Your task to perform on an android device: find which apps use the phone's location Image 0: 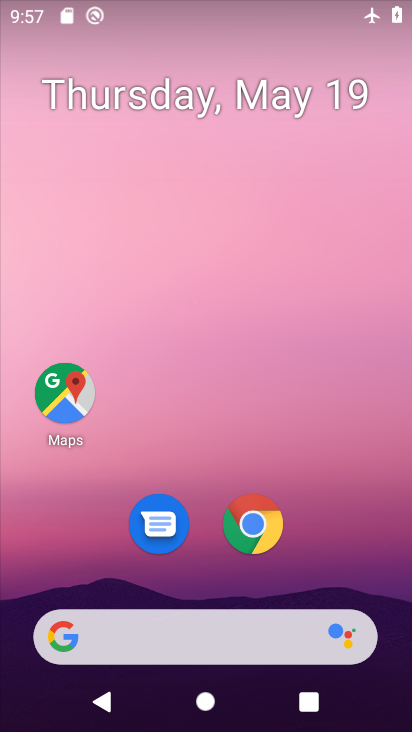
Step 0: drag from (241, 438) to (272, 95)
Your task to perform on an android device: find which apps use the phone's location Image 1: 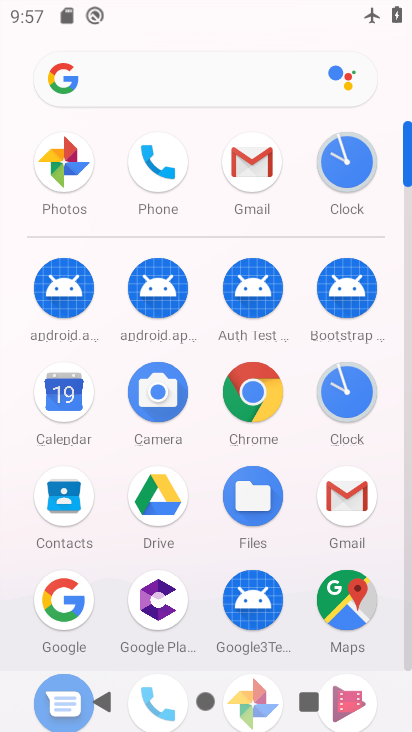
Step 1: drag from (200, 513) to (211, 155)
Your task to perform on an android device: find which apps use the phone's location Image 2: 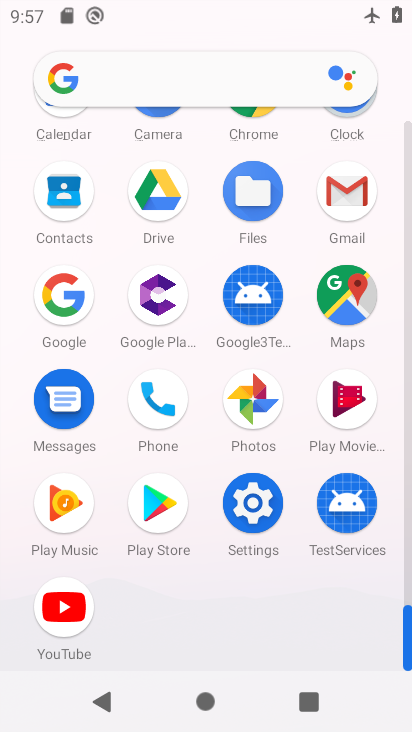
Step 2: click (256, 491)
Your task to perform on an android device: find which apps use the phone's location Image 3: 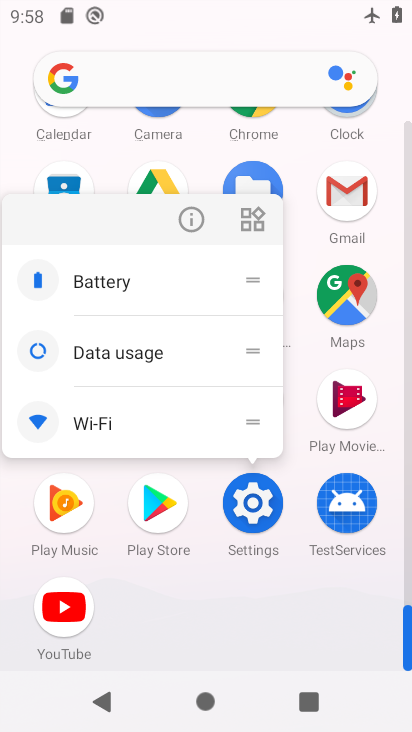
Step 3: click (256, 489)
Your task to perform on an android device: find which apps use the phone's location Image 4: 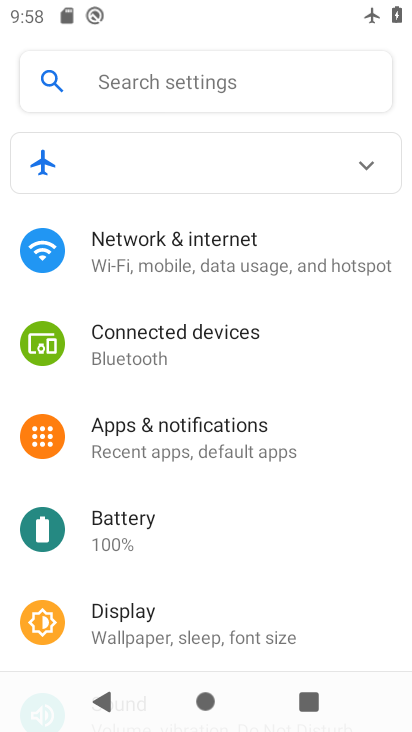
Step 4: drag from (246, 526) to (255, 201)
Your task to perform on an android device: find which apps use the phone's location Image 5: 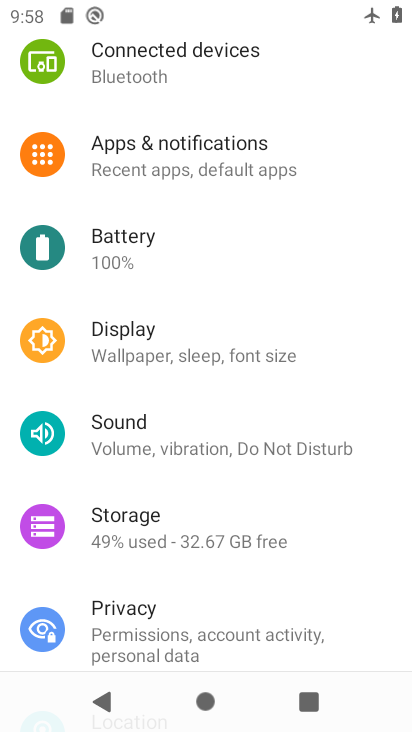
Step 5: drag from (243, 403) to (259, 103)
Your task to perform on an android device: find which apps use the phone's location Image 6: 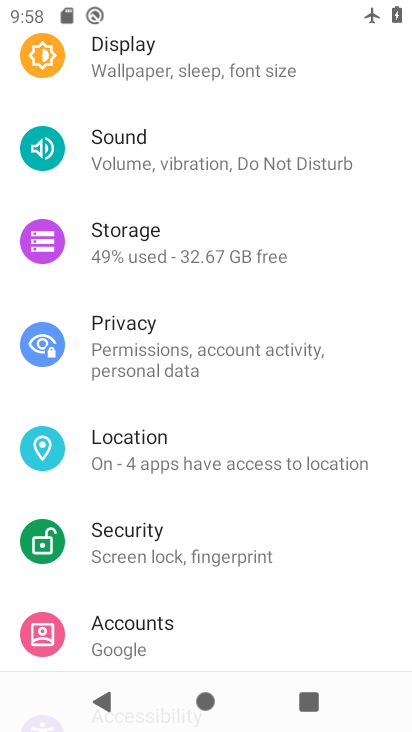
Step 6: click (234, 450)
Your task to perform on an android device: find which apps use the phone's location Image 7: 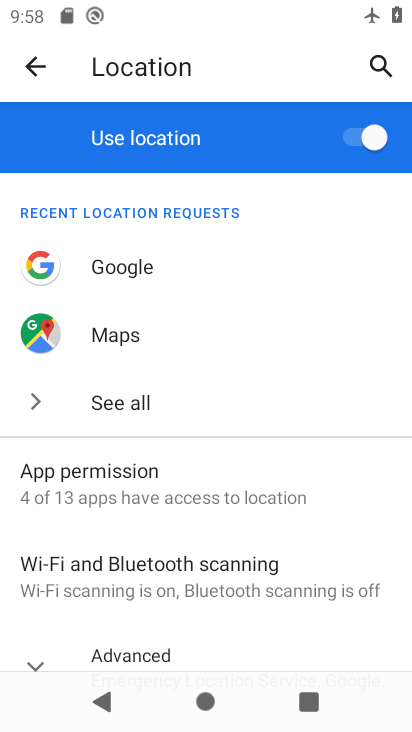
Step 7: drag from (252, 384) to (237, 181)
Your task to perform on an android device: find which apps use the phone's location Image 8: 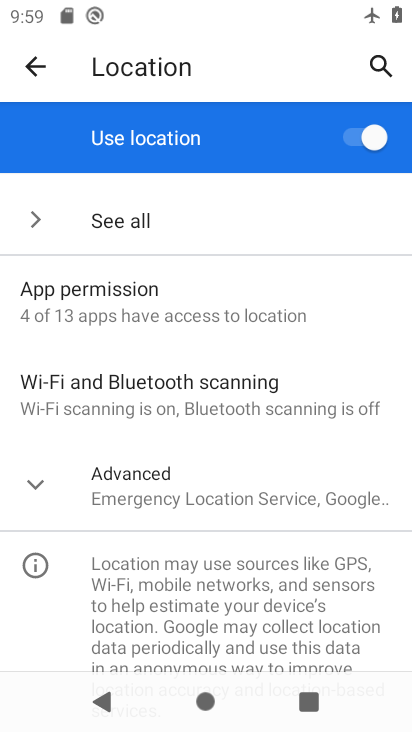
Step 8: click (224, 307)
Your task to perform on an android device: find which apps use the phone's location Image 9: 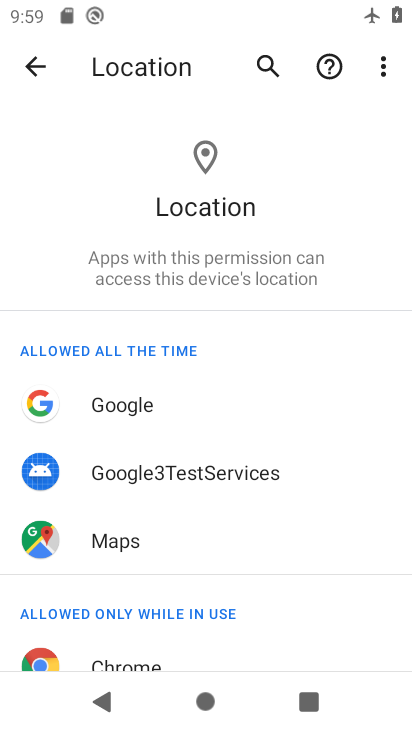
Step 9: task complete